Your task to perform on an android device: Open Youtube and go to "Your channel" Image 0: 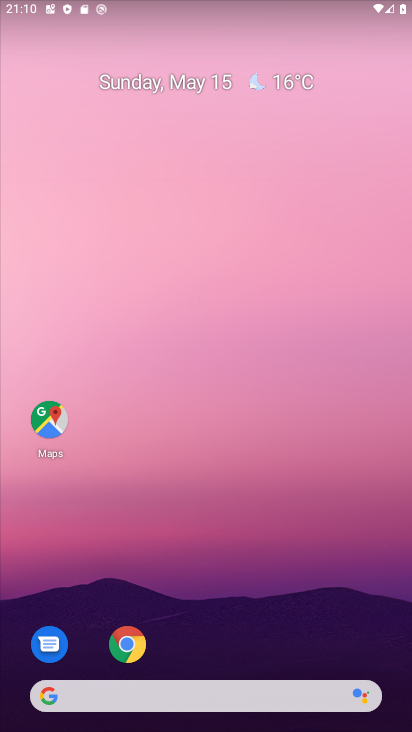
Step 0: drag from (256, 645) to (274, 0)
Your task to perform on an android device: Open Youtube and go to "Your channel" Image 1: 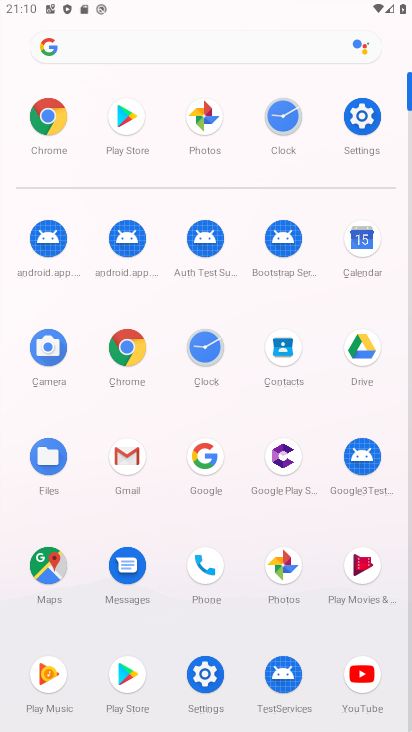
Step 1: click (364, 693)
Your task to perform on an android device: Open Youtube and go to "Your channel" Image 2: 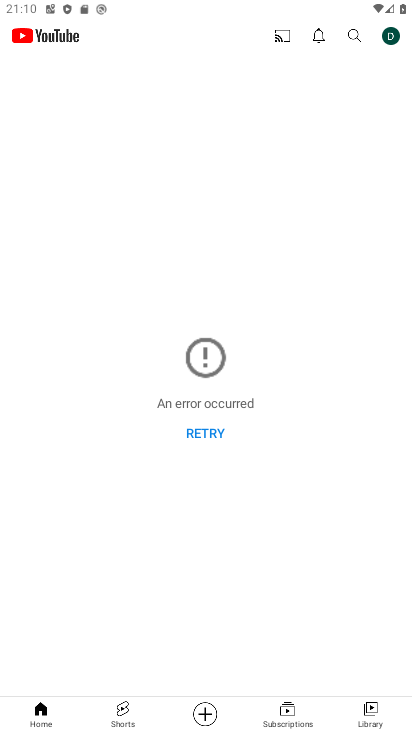
Step 2: click (388, 30)
Your task to perform on an android device: Open Youtube and go to "Your channel" Image 3: 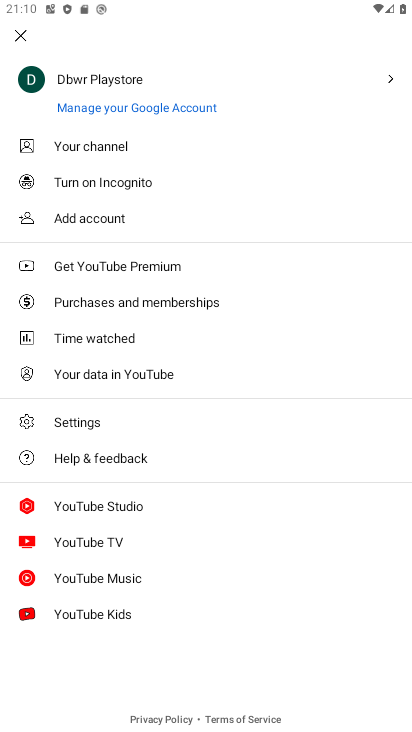
Step 3: click (103, 136)
Your task to perform on an android device: Open Youtube and go to "Your channel" Image 4: 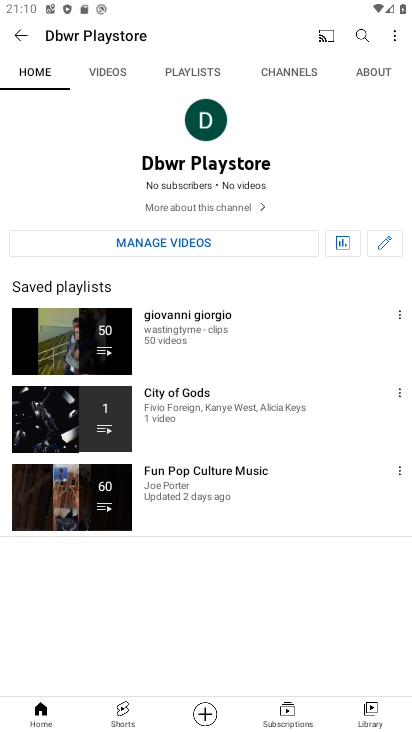
Step 4: task complete